Your task to perform on an android device: Open Yahoo.com Image 0: 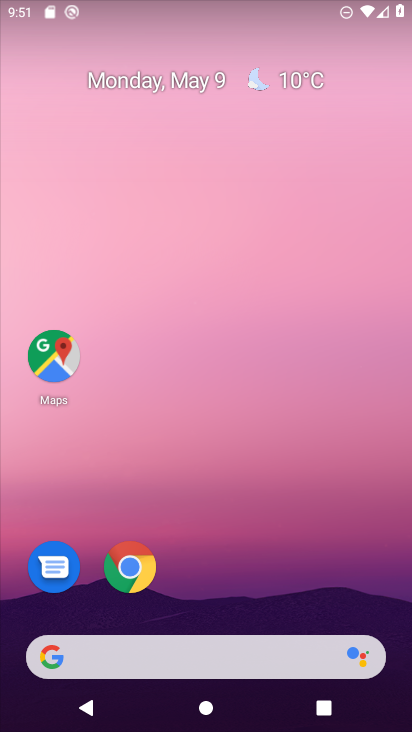
Step 0: click (288, 668)
Your task to perform on an android device: Open Yahoo.com Image 1: 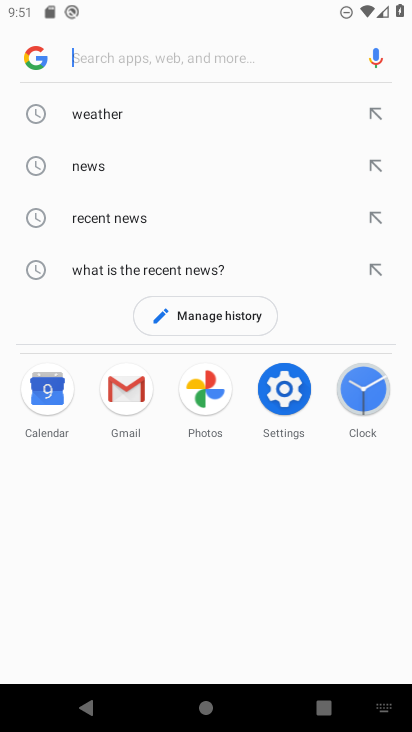
Step 1: type "yahoo.com"
Your task to perform on an android device: Open Yahoo.com Image 2: 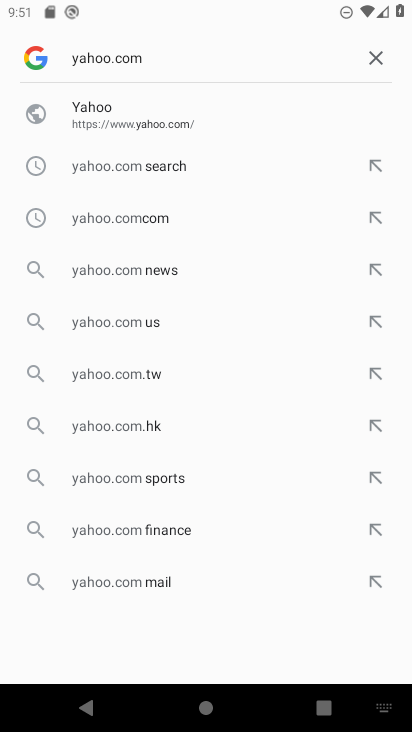
Step 2: click (80, 102)
Your task to perform on an android device: Open Yahoo.com Image 3: 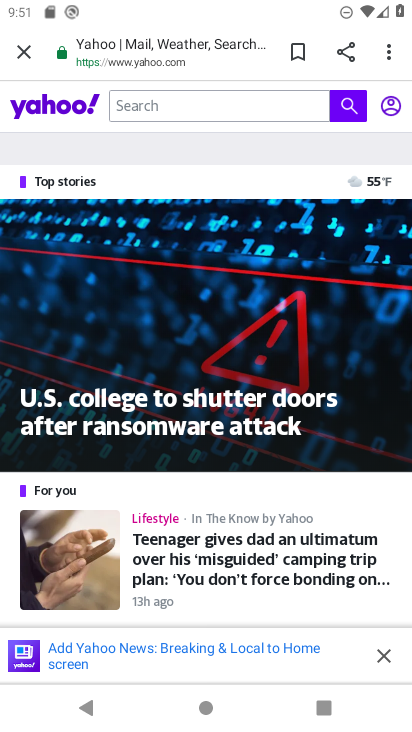
Step 3: task complete